Your task to perform on an android device: Open the calendar app, open the side menu, and click the "Day" option Image 0: 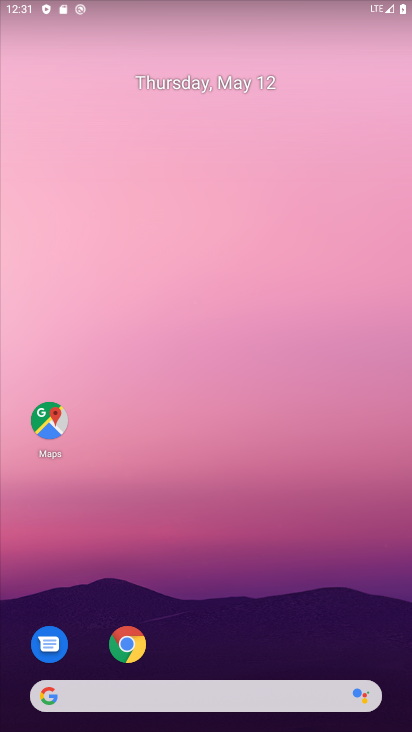
Step 0: drag from (247, 391) to (204, 60)
Your task to perform on an android device: Open the calendar app, open the side menu, and click the "Day" option Image 1: 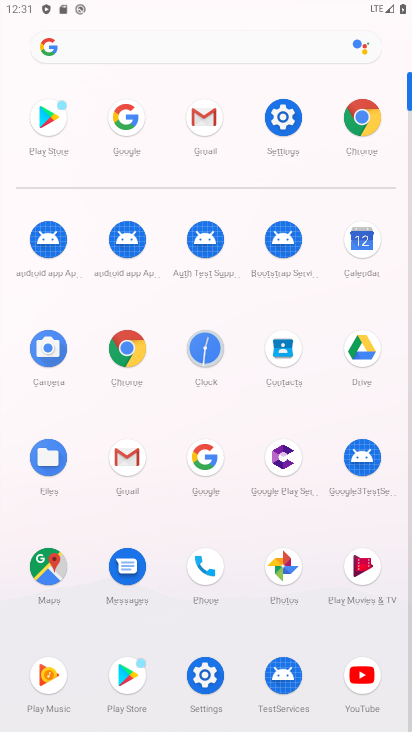
Step 1: click (347, 232)
Your task to perform on an android device: Open the calendar app, open the side menu, and click the "Day" option Image 2: 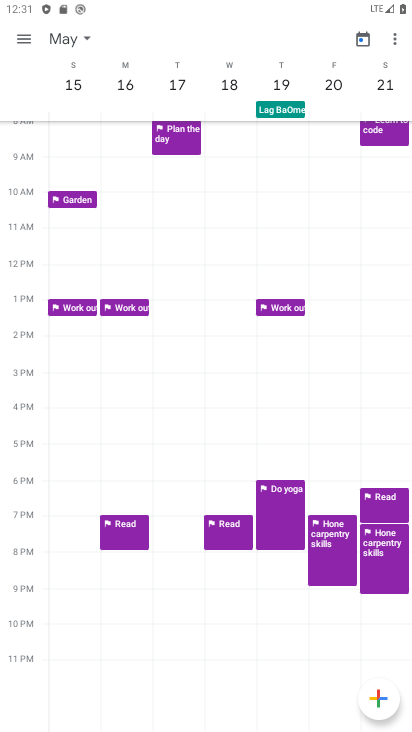
Step 2: click (21, 31)
Your task to perform on an android device: Open the calendar app, open the side menu, and click the "Day" option Image 3: 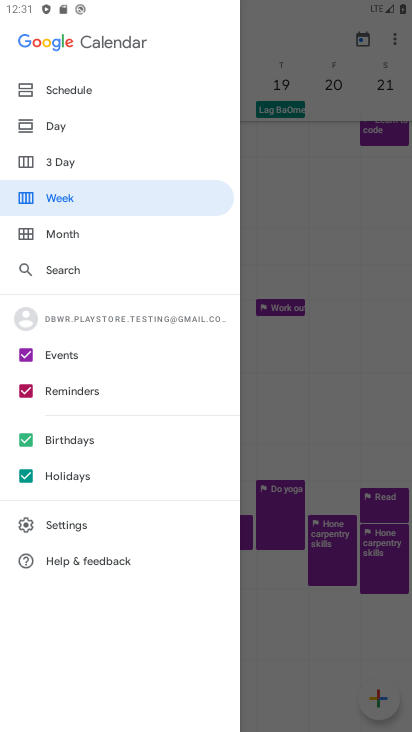
Step 3: click (69, 131)
Your task to perform on an android device: Open the calendar app, open the side menu, and click the "Day" option Image 4: 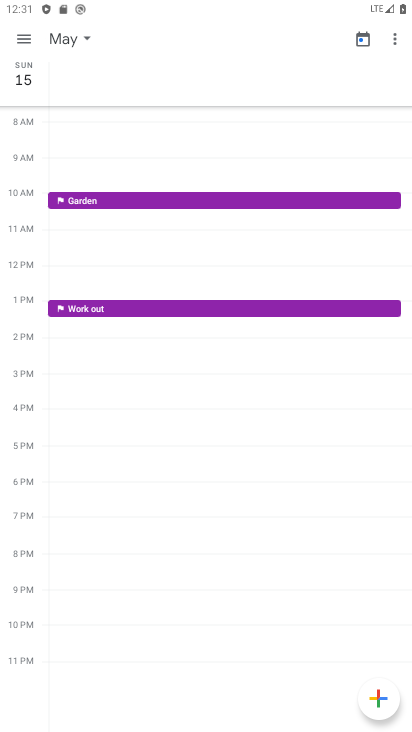
Step 4: task complete